Your task to perform on an android device: open app "HBO Max: Stream TV & Movies" (install if not already installed) Image 0: 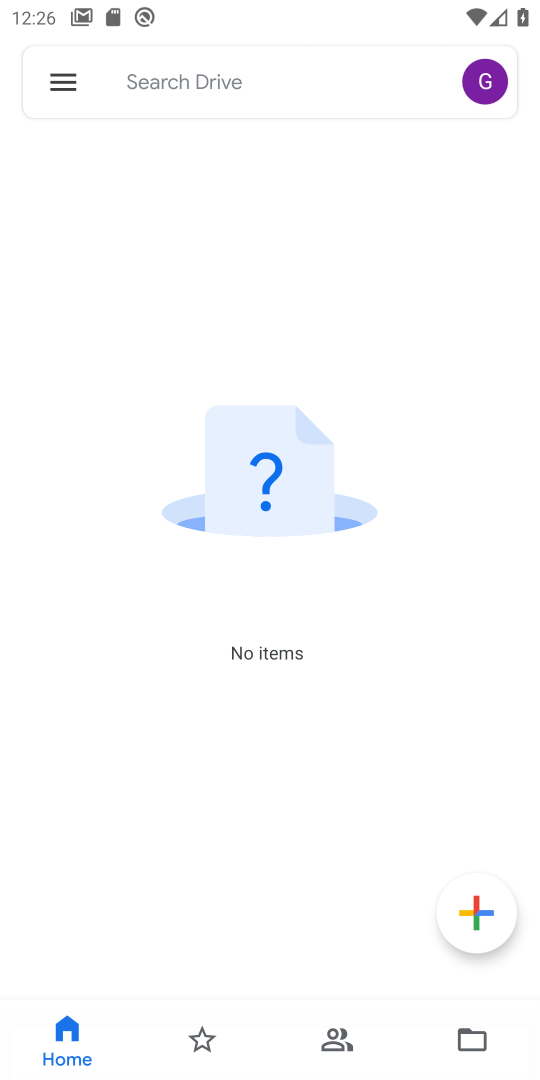
Step 0: press home button
Your task to perform on an android device: open app "HBO Max: Stream TV & Movies" (install if not already installed) Image 1: 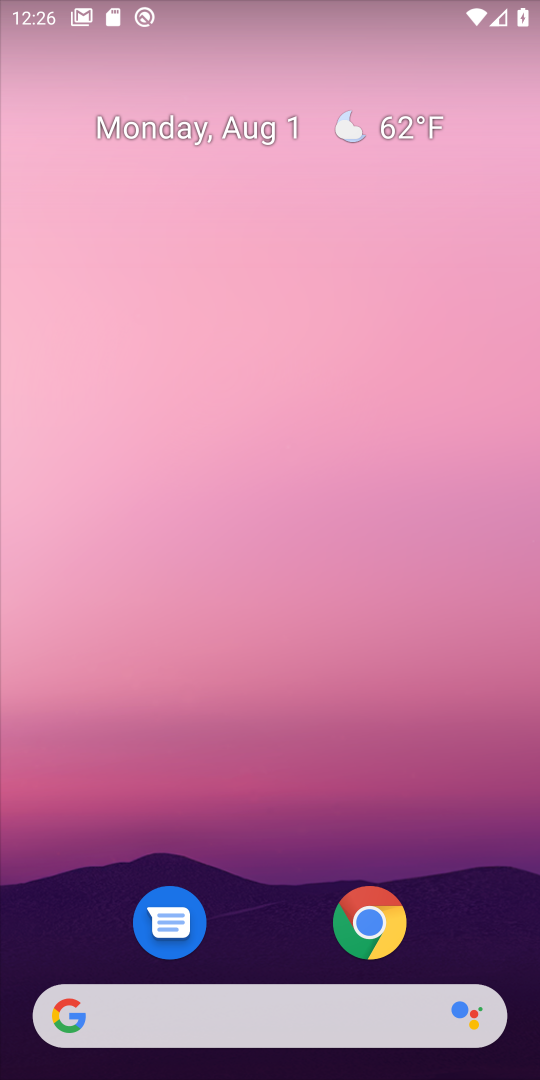
Step 1: drag from (234, 907) to (198, 288)
Your task to perform on an android device: open app "HBO Max: Stream TV & Movies" (install if not already installed) Image 2: 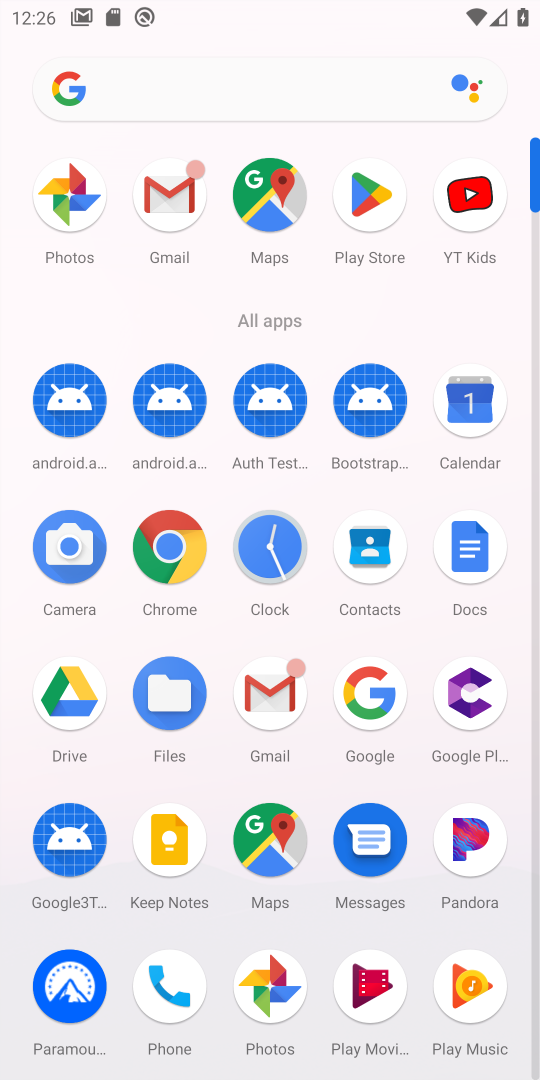
Step 2: click (348, 222)
Your task to perform on an android device: open app "HBO Max: Stream TV & Movies" (install if not already installed) Image 3: 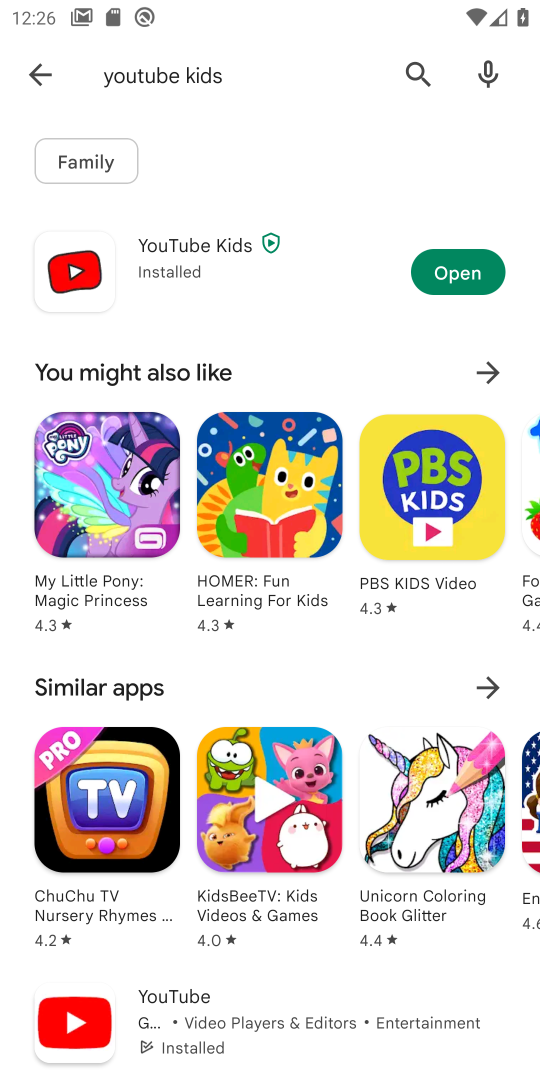
Step 3: click (414, 81)
Your task to perform on an android device: open app "HBO Max: Stream TV & Movies" (install if not already installed) Image 4: 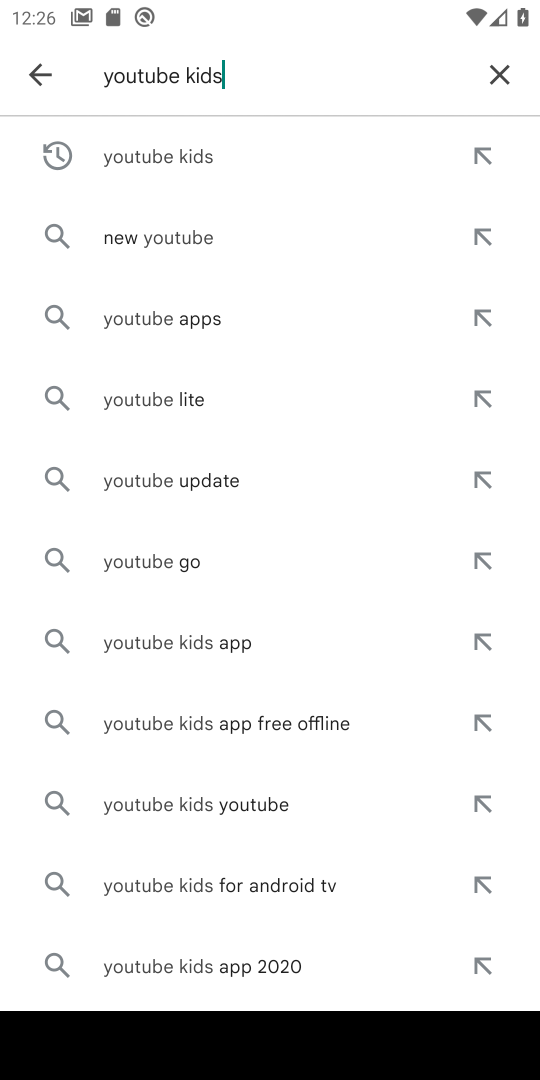
Step 4: click (493, 65)
Your task to perform on an android device: open app "HBO Max: Stream TV & Movies" (install if not already installed) Image 5: 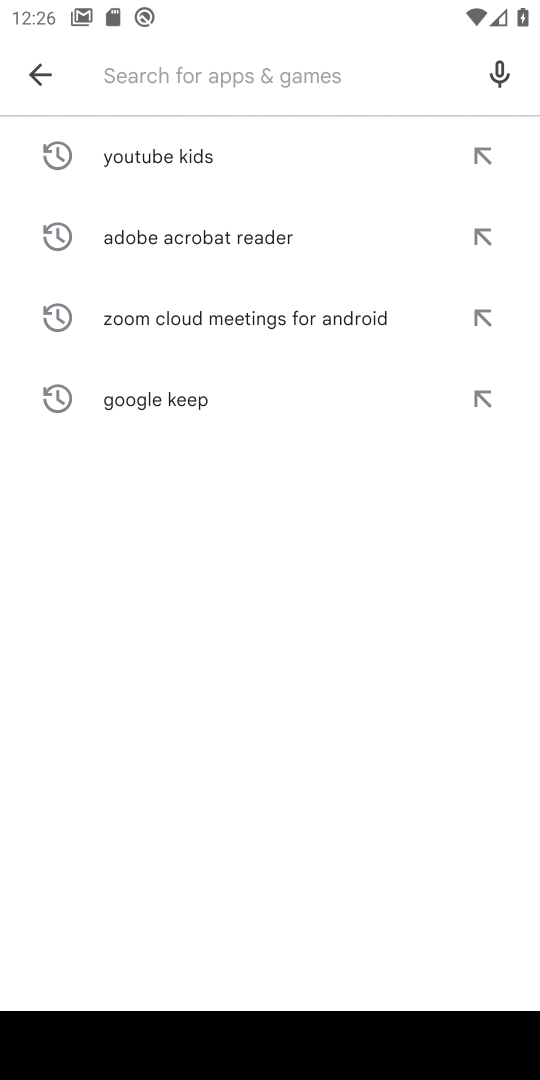
Step 5: type "HBO Max: Stream TV & Movies"
Your task to perform on an android device: open app "HBO Max: Stream TV & Movies" (install if not already installed) Image 6: 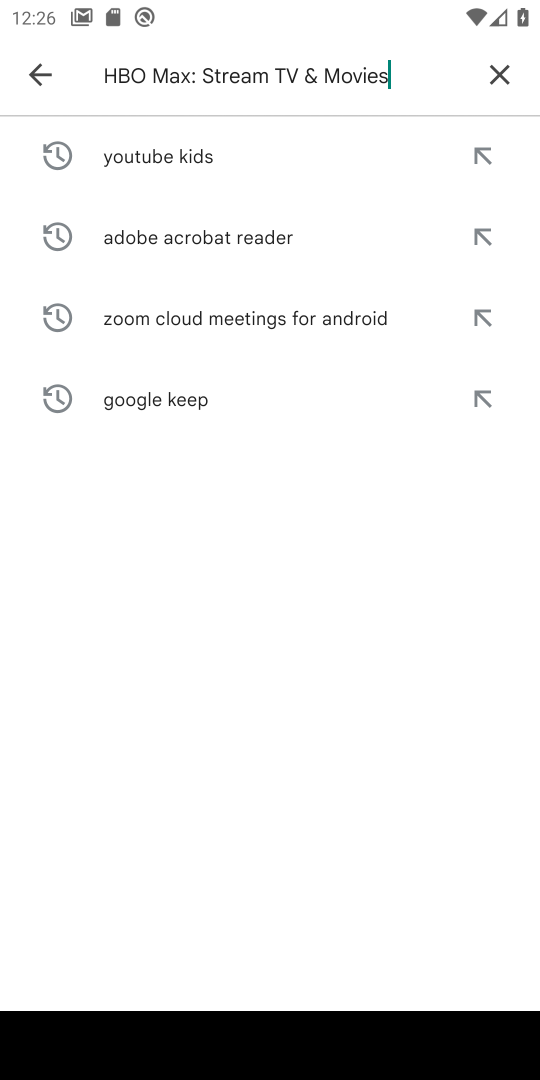
Step 6: type ""
Your task to perform on an android device: open app "HBO Max: Stream TV & Movies" (install if not already installed) Image 7: 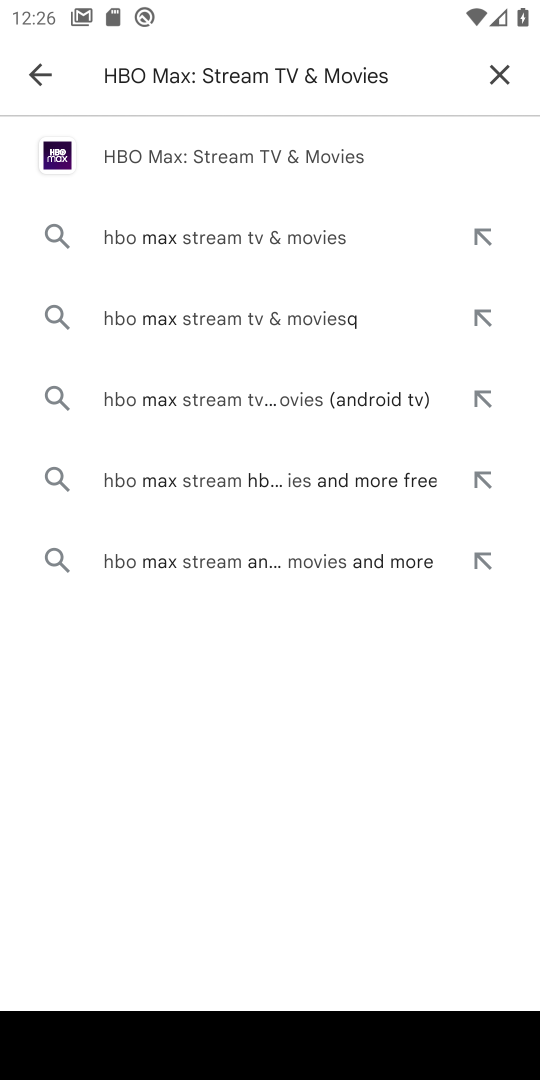
Step 7: click (287, 153)
Your task to perform on an android device: open app "HBO Max: Stream TV & Movies" (install if not already installed) Image 8: 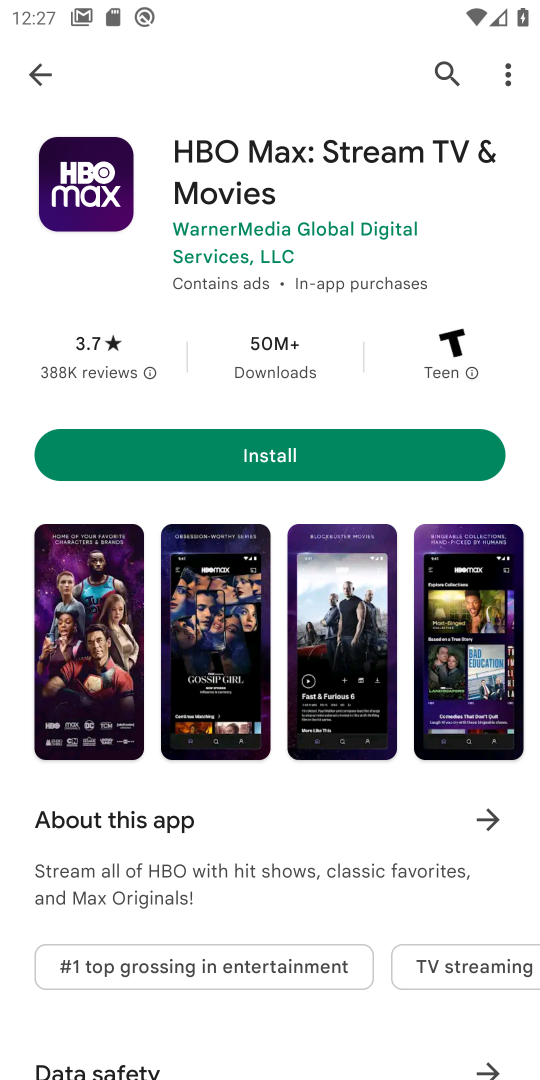
Step 8: click (224, 466)
Your task to perform on an android device: open app "HBO Max: Stream TV & Movies" (install if not already installed) Image 9: 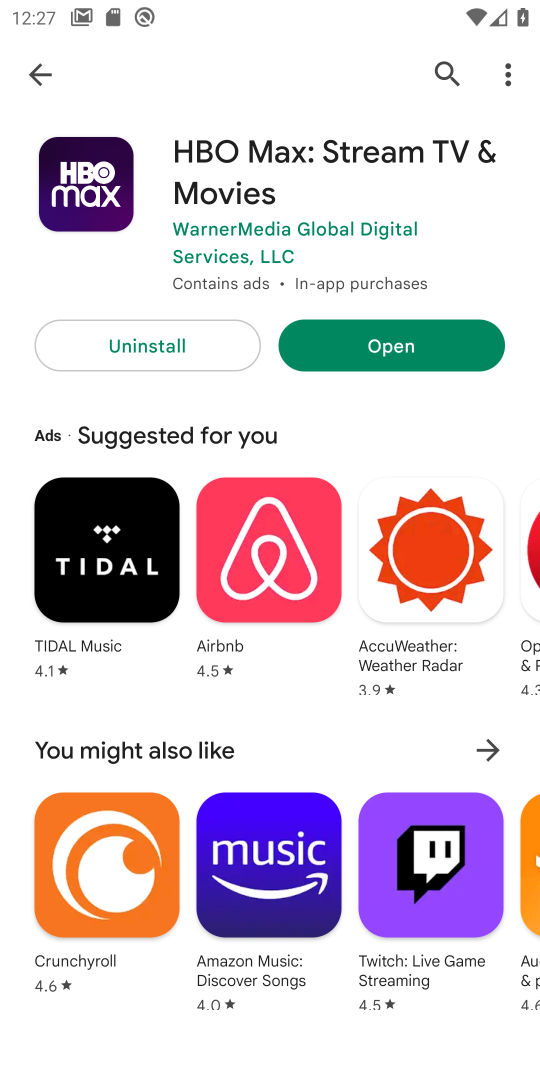
Step 9: click (387, 363)
Your task to perform on an android device: open app "HBO Max: Stream TV & Movies" (install if not already installed) Image 10: 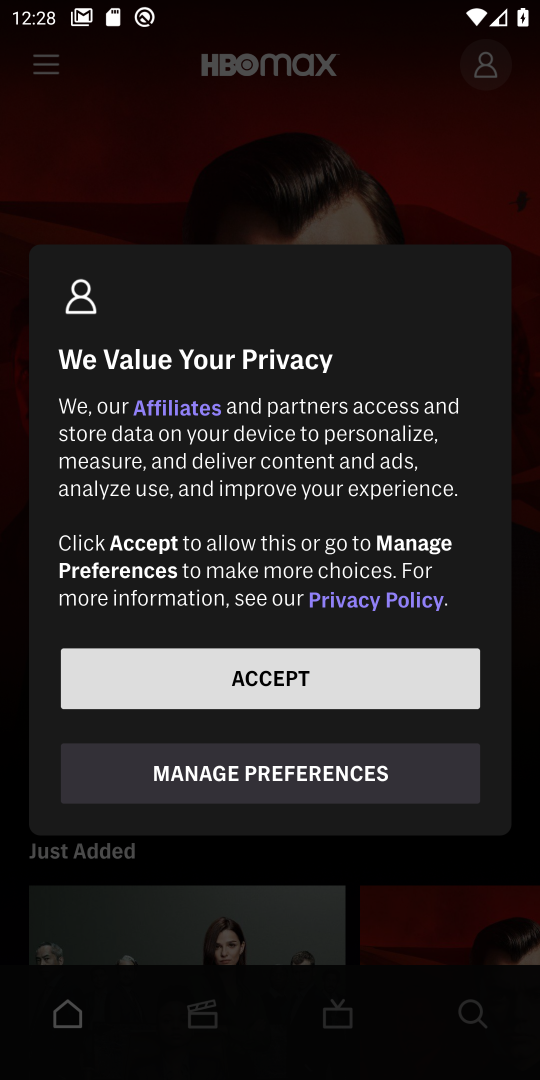
Step 10: task complete